Your task to perform on an android device: Open Youtube and go to the subscriptions tab Image 0: 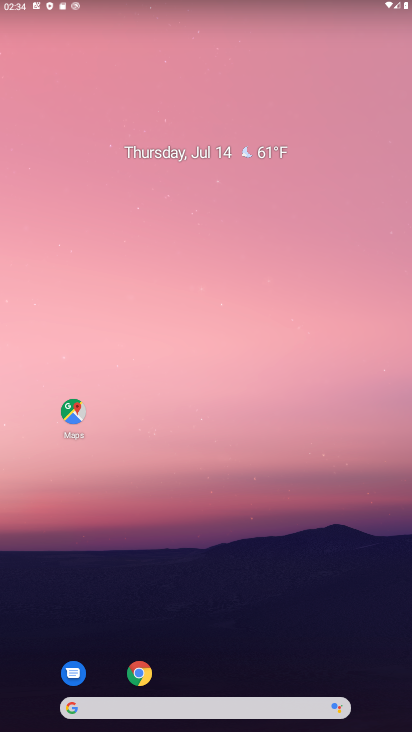
Step 0: drag from (238, 670) to (247, 48)
Your task to perform on an android device: Open Youtube and go to the subscriptions tab Image 1: 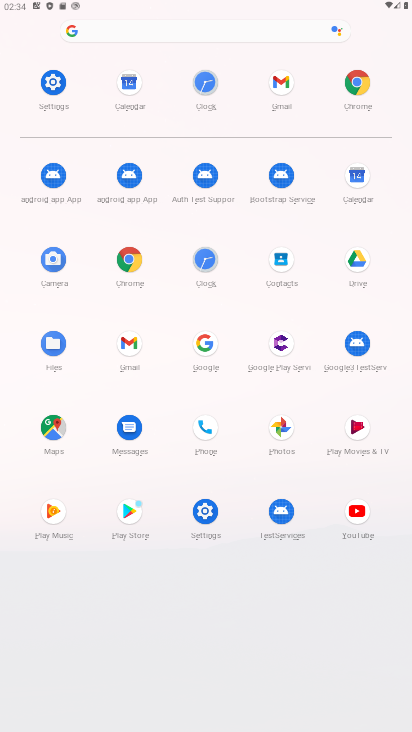
Step 1: click (355, 512)
Your task to perform on an android device: Open Youtube and go to the subscriptions tab Image 2: 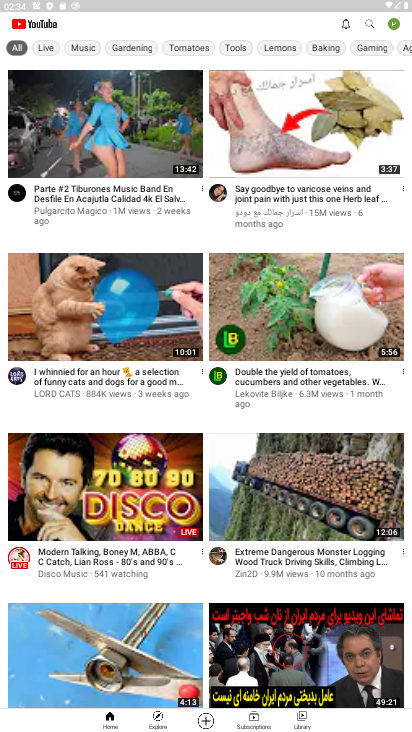
Step 2: click (241, 724)
Your task to perform on an android device: Open Youtube and go to the subscriptions tab Image 3: 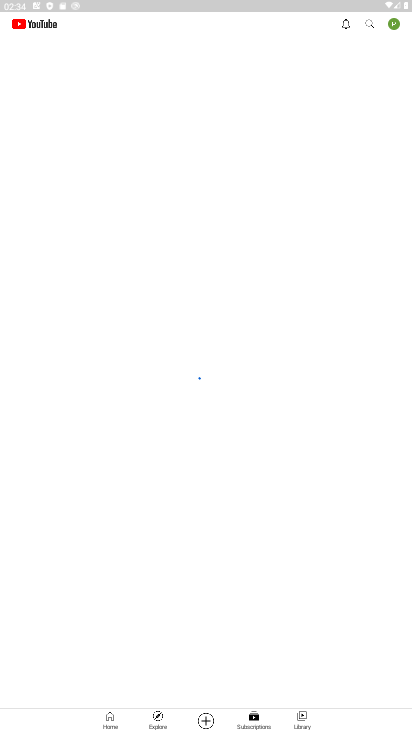
Step 3: task complete